Your task to perform on an android device: What's a good restaurant in New Jersey? Image 0: 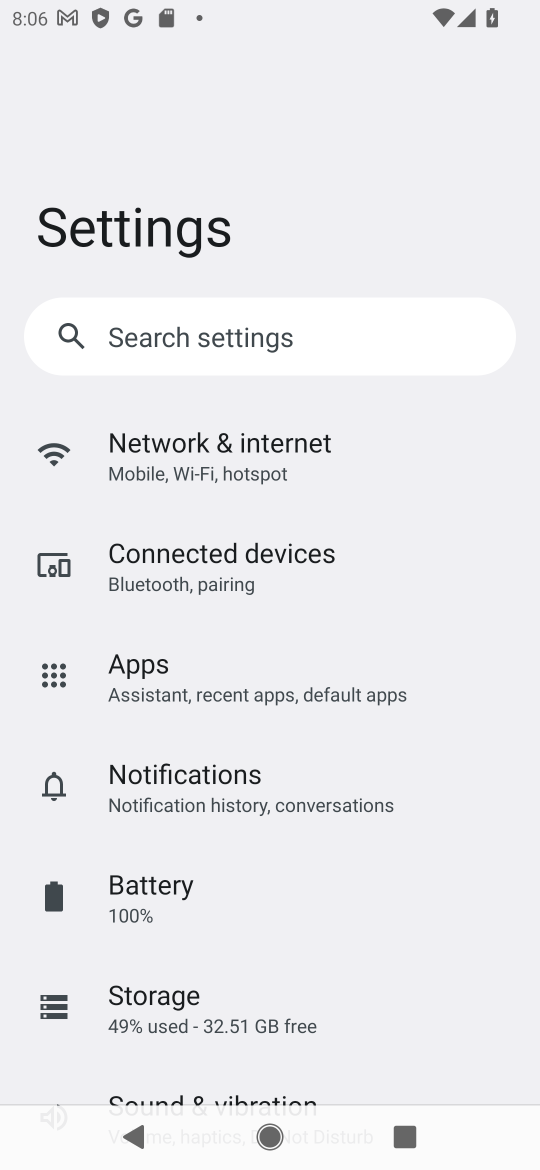
Step 0: press back button
Your task to perform on an android device: What's a good restaurant in New Jersey? Image 1: 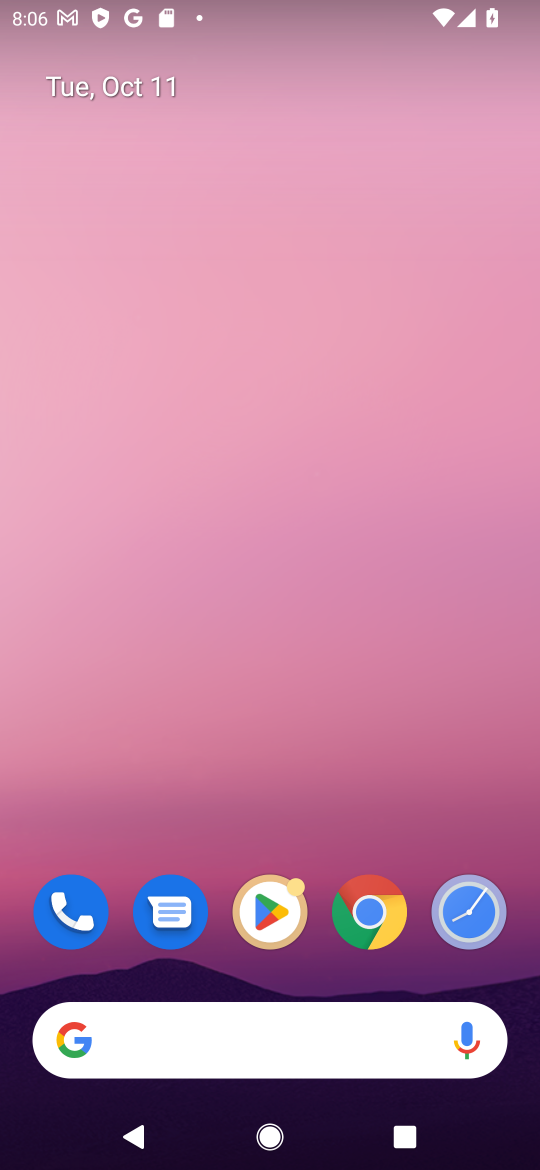
Step 1: click (364, 909)
Your task to perform on an android device: What's a good restaurant in New Jersey? Image 2: 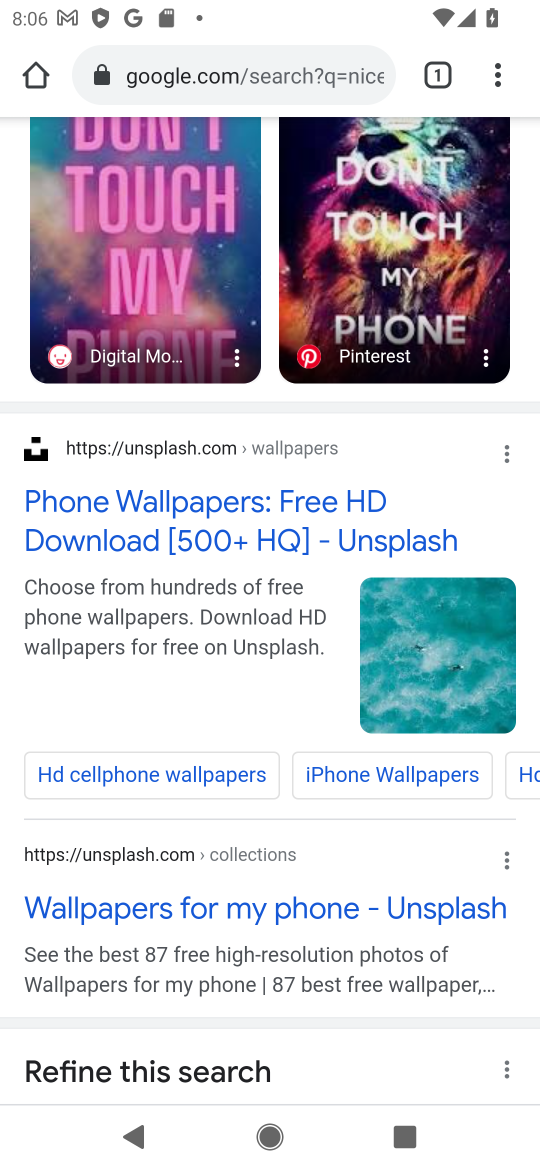
Step 2: click (219, 53)
Your task to perform on an android device: What's a good restaurant in New Jersey? Image 3: 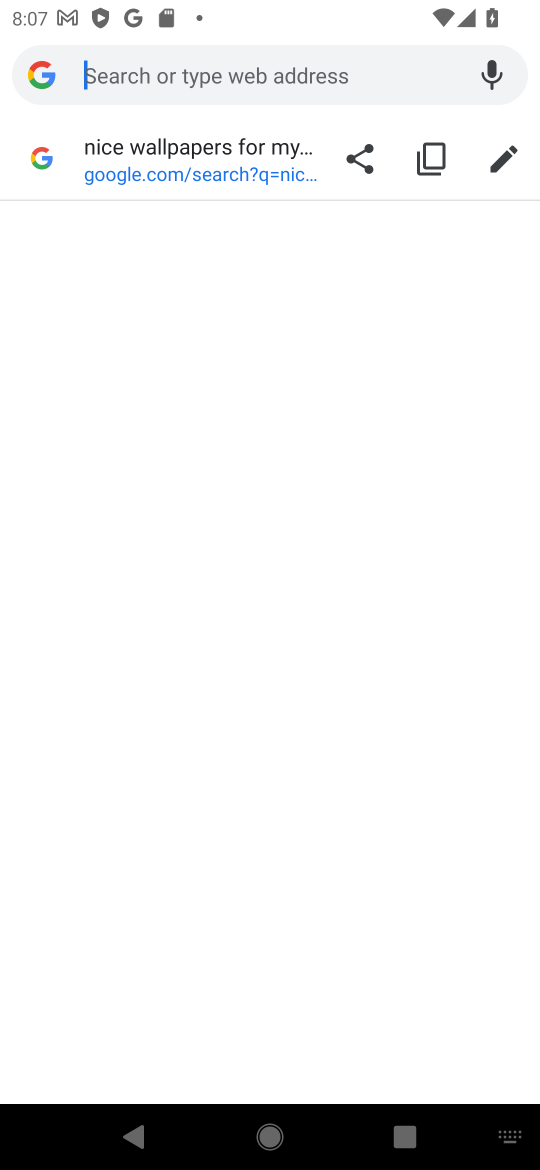
Step 3: type "good restaurants in new jersey?"
Your task to perform on an android device: What's a good restaurant in New Jersey? Image 4: 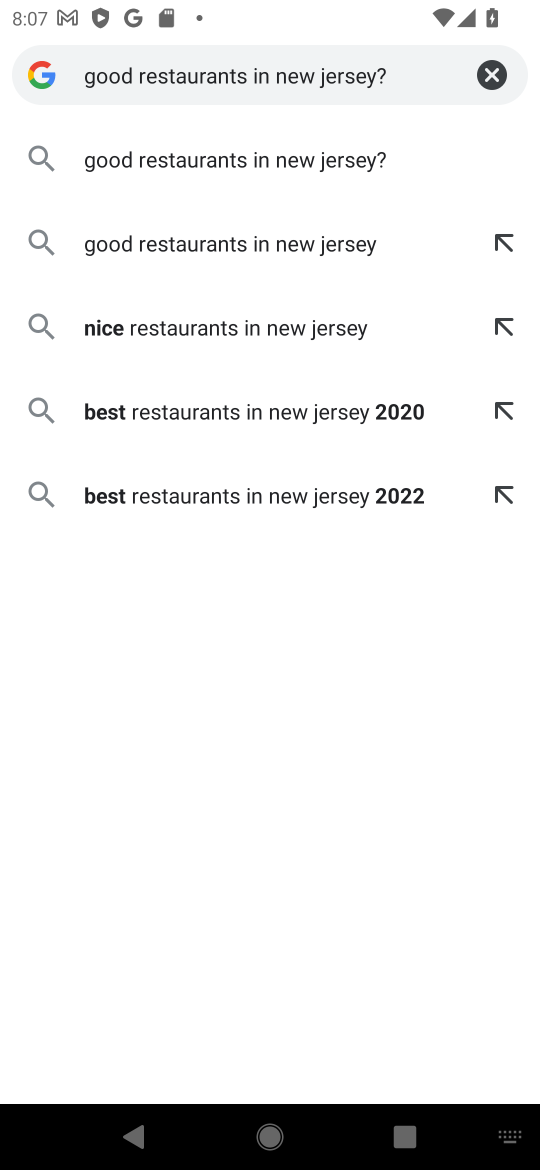
Step 4: click (164, 158)
Your task to perform on an android device: What's a good restaurant in New Jersey? Image 5: 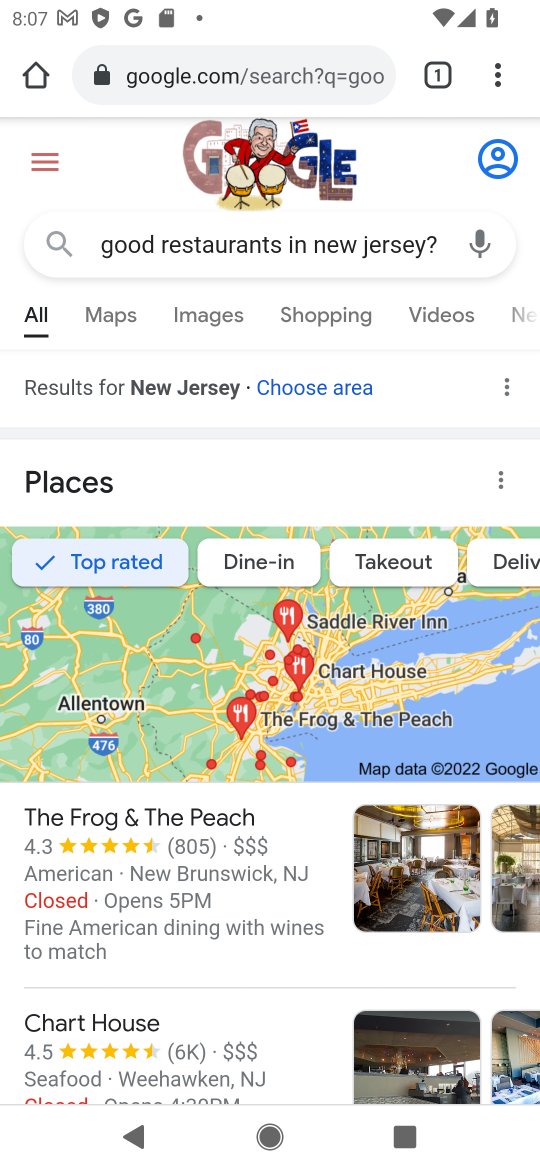
Step 5: drag from (309, 820) to (299, 304)
Your task to perform on an android device: What's a good restaurant in New Jersey? Image 6: 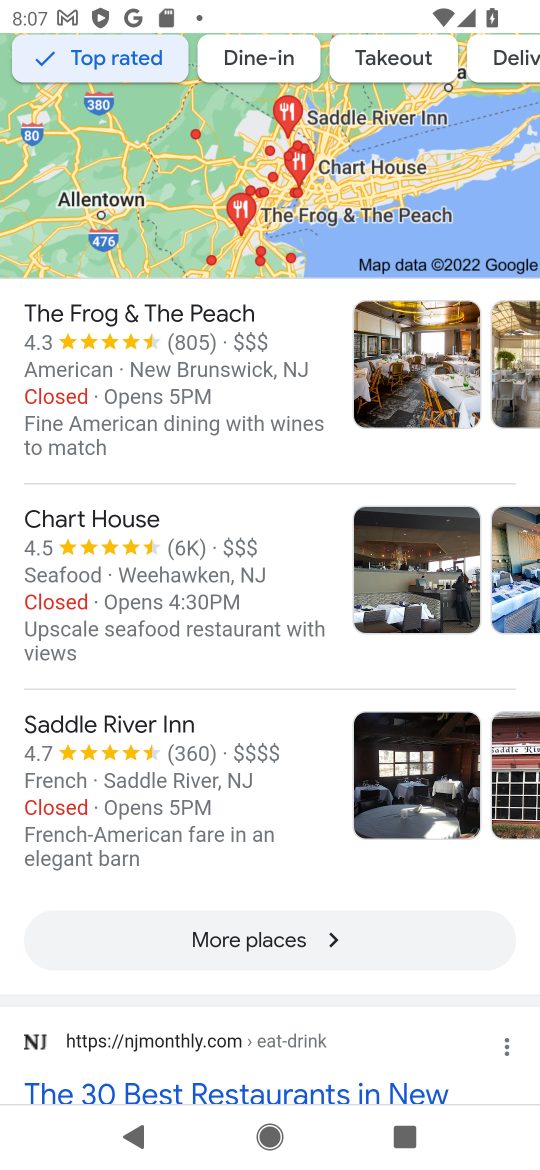
Step 6: drag from (288, 848) to (299, 439)
Your task to perform on an android device: What's a good restaurant in New Jersey? Image 7: 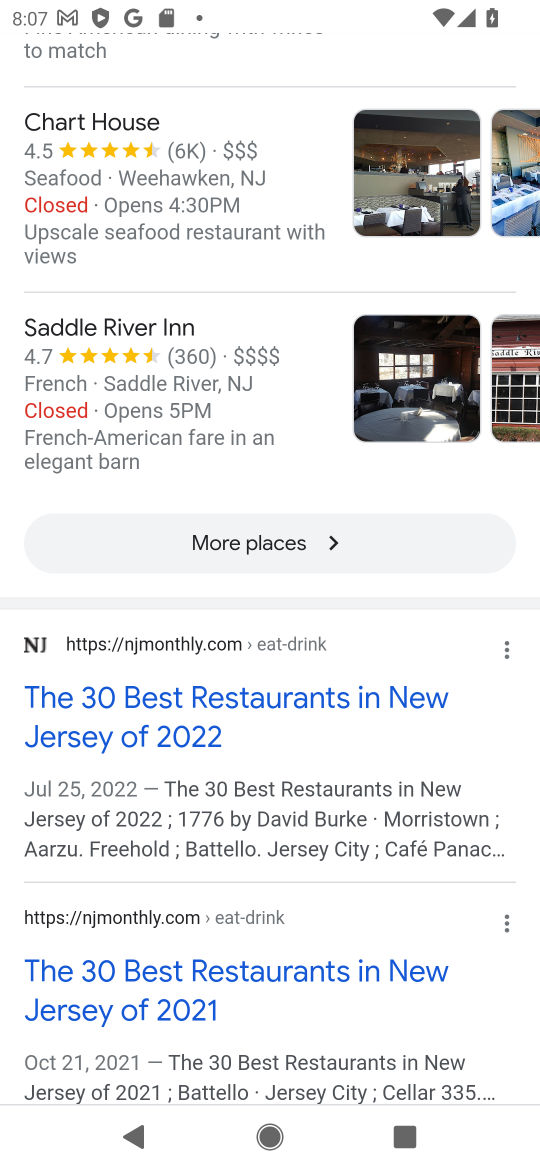
Step 7: click (162, 701)
Your task to perform on an android device: What's a good restaurant in New Jersey? Image 8: 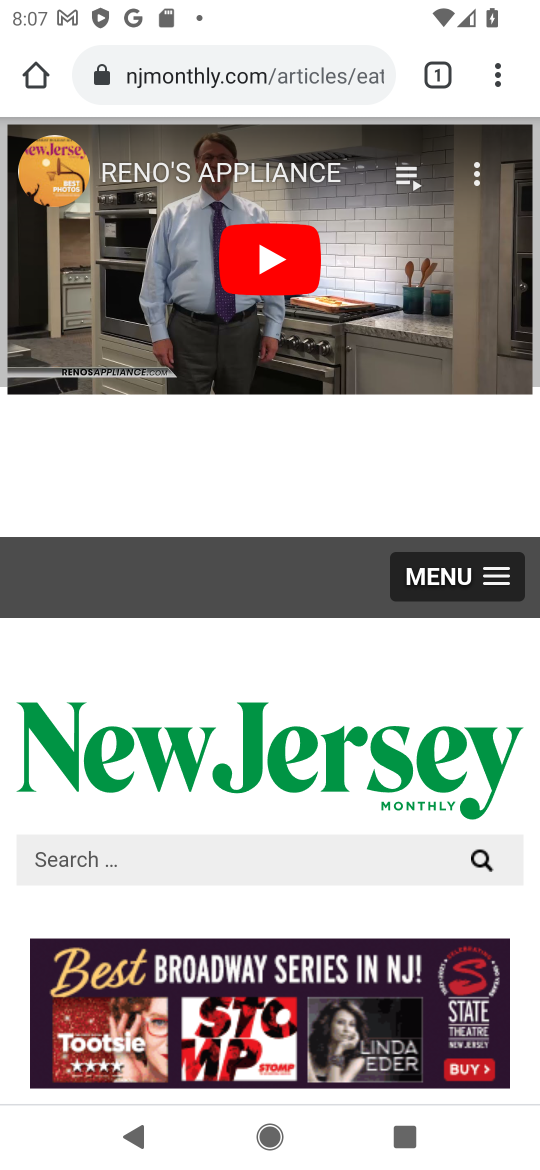
Step 8: drag from (275, 817) to (315, 171)
Your task to perform on an android device: What's a good restaurant in New Jersey? Image 9: 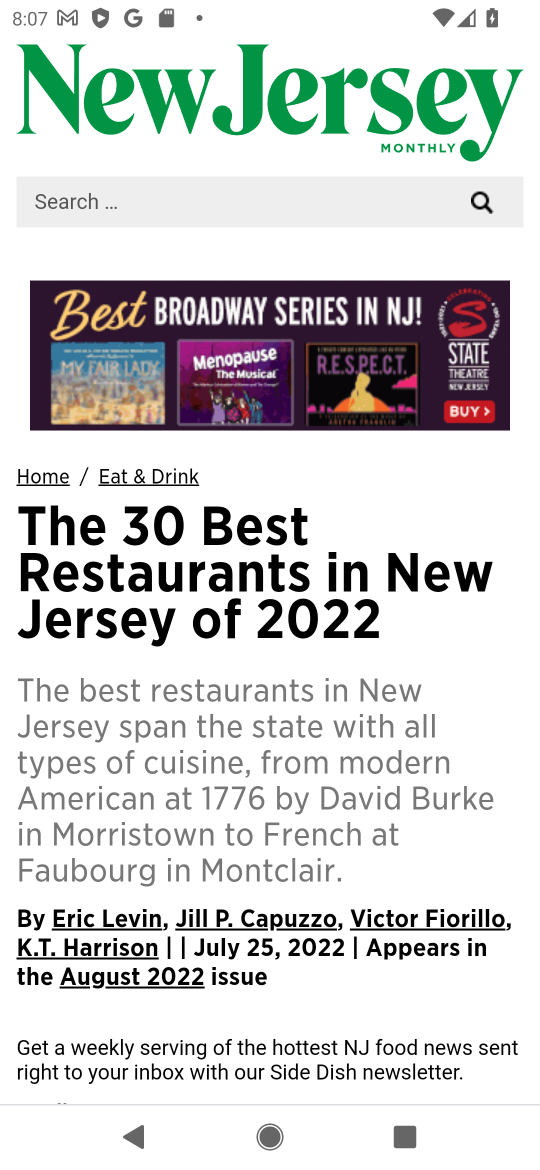
Step 9: drag from (282, 686) to (350, 216)
Your task to perform on an android device: What's a good restaurant in New Jersey? Image 10: 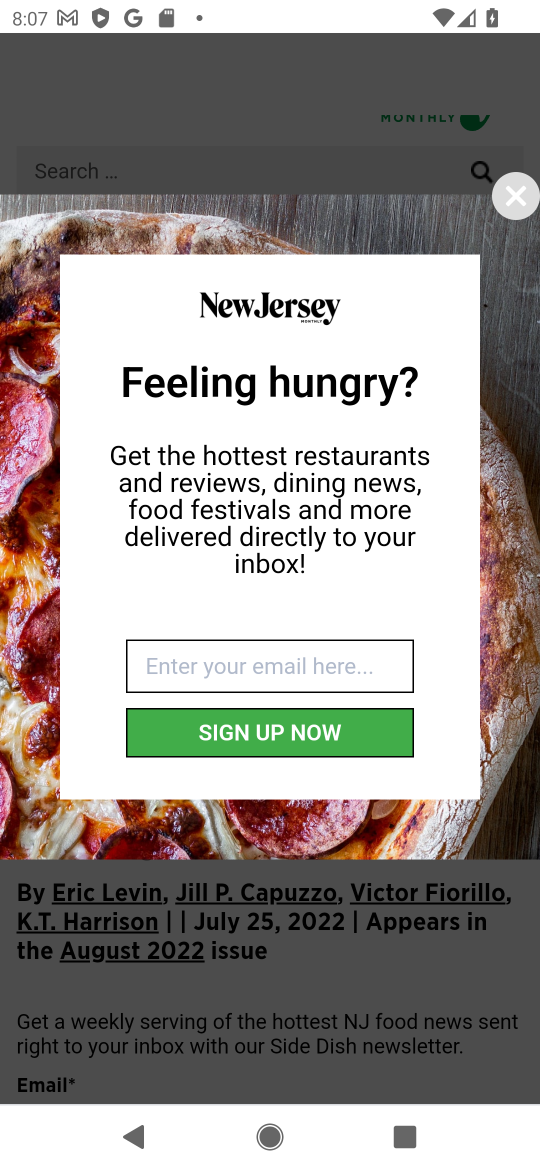
Step 10: click (513, 194)
Your task to perform on an android device: What's a good restaurant in New Jersey? Image 11: 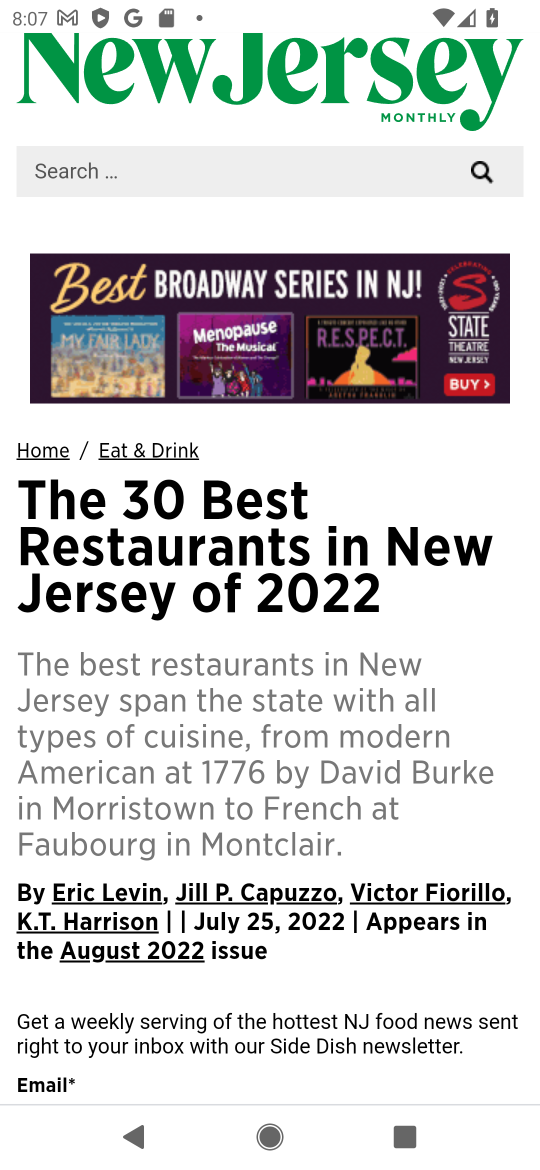
Step 11: task complete